Your task to perform on an android device: Show me popular videos on Youtube Image 0: 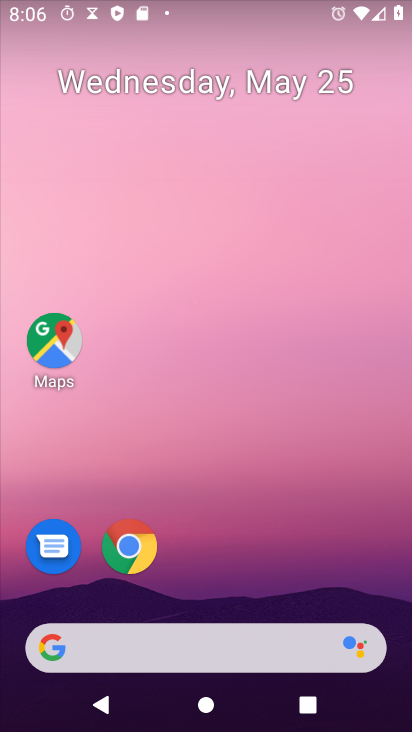
Step 0: drag from (238, 594) to (331, 17)
Your task to perform on an android device: Show me popular videos on Youtube Image 1: 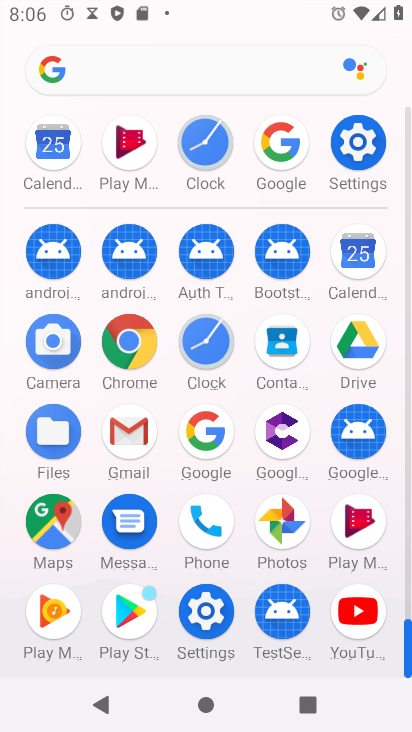
Step 1: click (352, 640)
Your task to perform on an android device: Show me popular videos on Youtube Image 2: 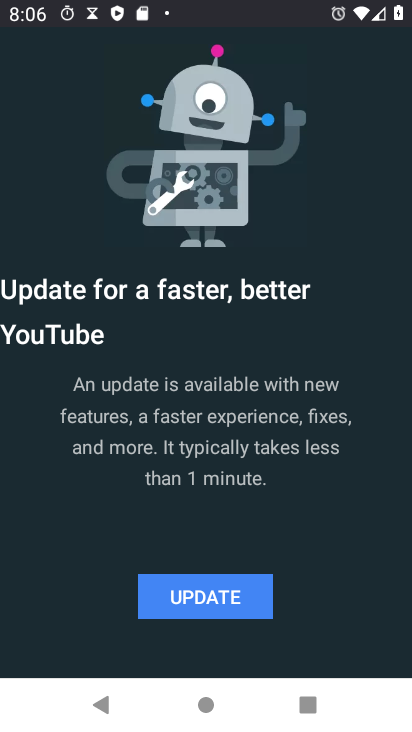
Step 2: click (228, 602)
Your task to perform on an android device: Show me popular videos on Youtube Image 3: 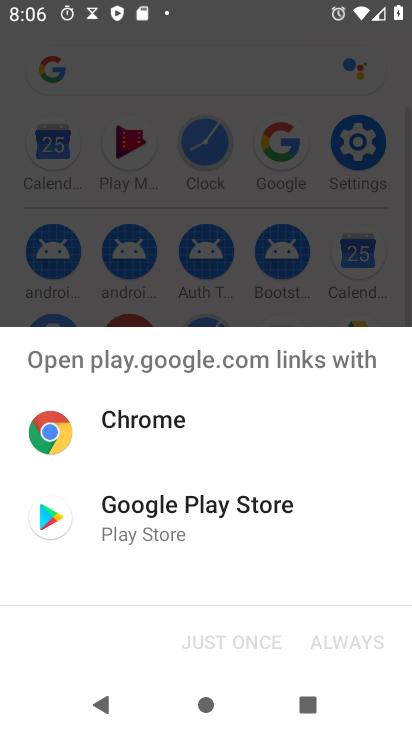
Step 3: click (164, 525)
Your task to perform on an android device: Show me popular videos on Youtube Image 4: 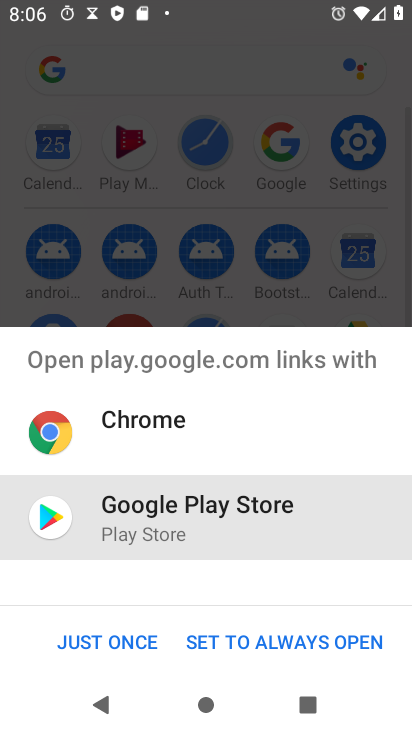
Step 4: click (357, 643)
Your task to perform on an android device: Show me popular videos on Youtube Image 5: 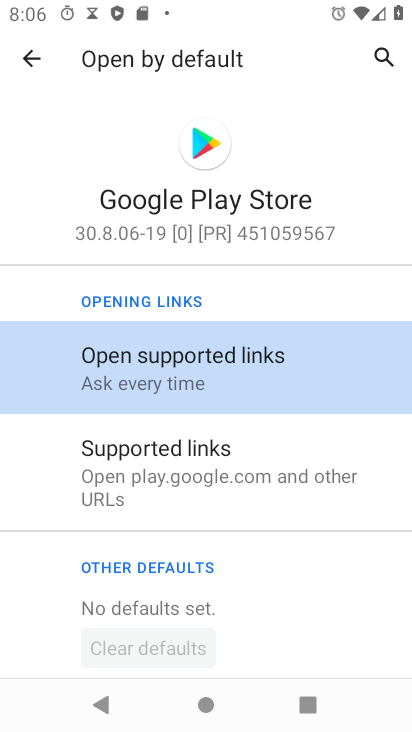
Step 5: click (162, 375)
Your task to perform on an android device: Show me popular videos on Youtube Image 6: 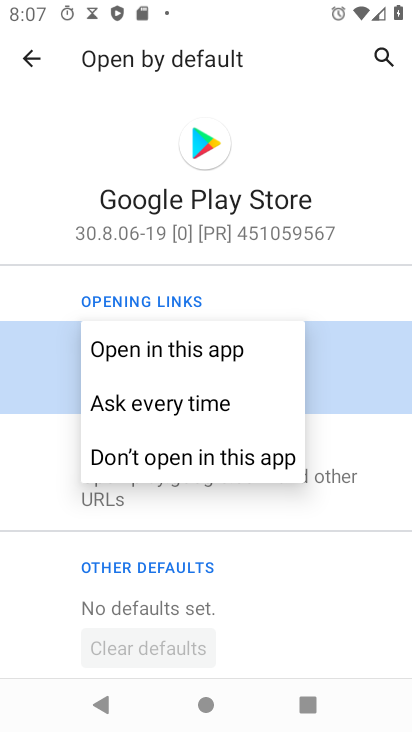
Step 6: click (166, 358)
Your task to perform on an android device: Show me popular videos on Youtube Image 7: 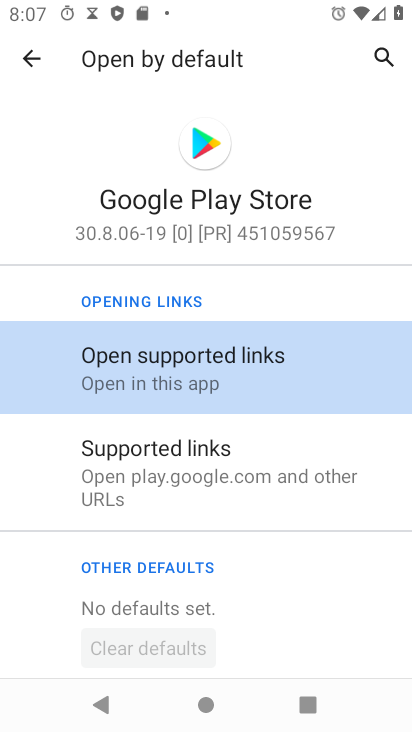
Step 7: click (51, 73)
Your task to perform on an android device: Show me popular videos on Youtube Image 8: 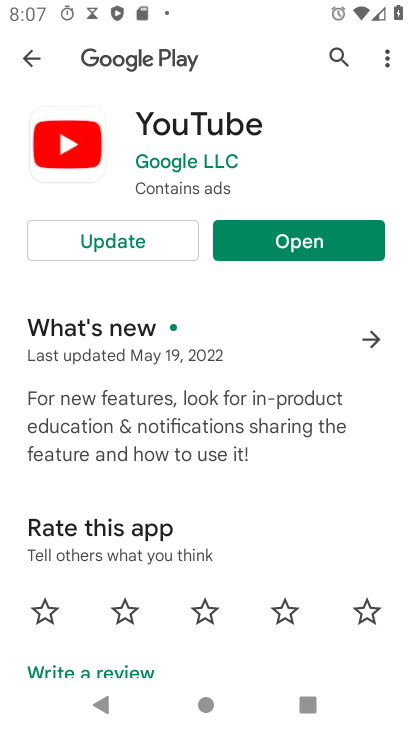
Step 8: click (154, 253)
Your task to perform on an android device: Show me popular videos on Youtube Image 9: 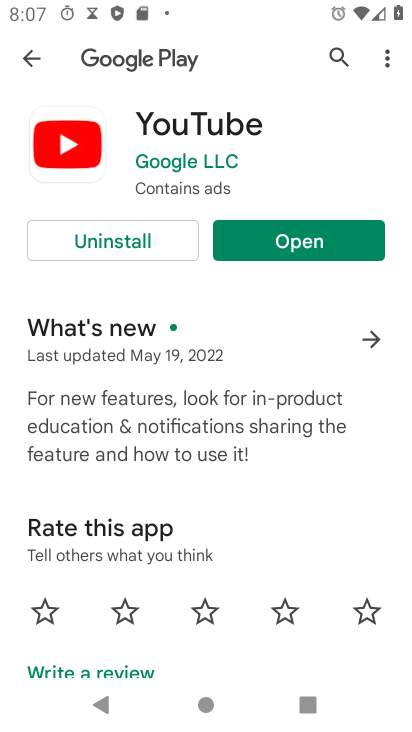
Step 9: click (250, 244)
Your task to perform on an android device: Show me popular videos on Youtube Image 10: 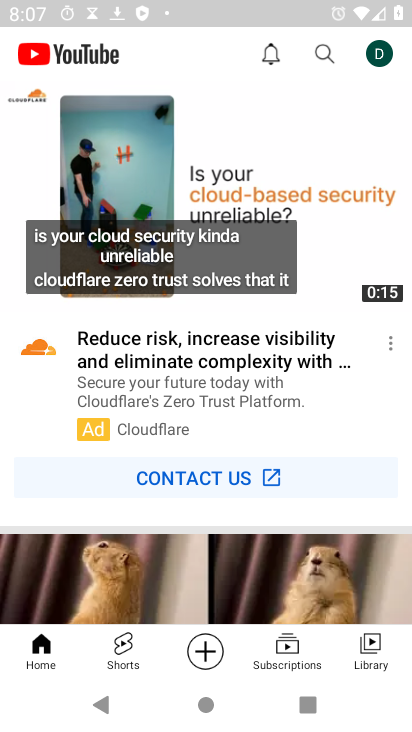
Step 10: task complete